Your task to perform on an android device: Search for "macbook pro 13 inch" on costco.com, select the first entry, add it to the cart, then select checkout. Image 0: 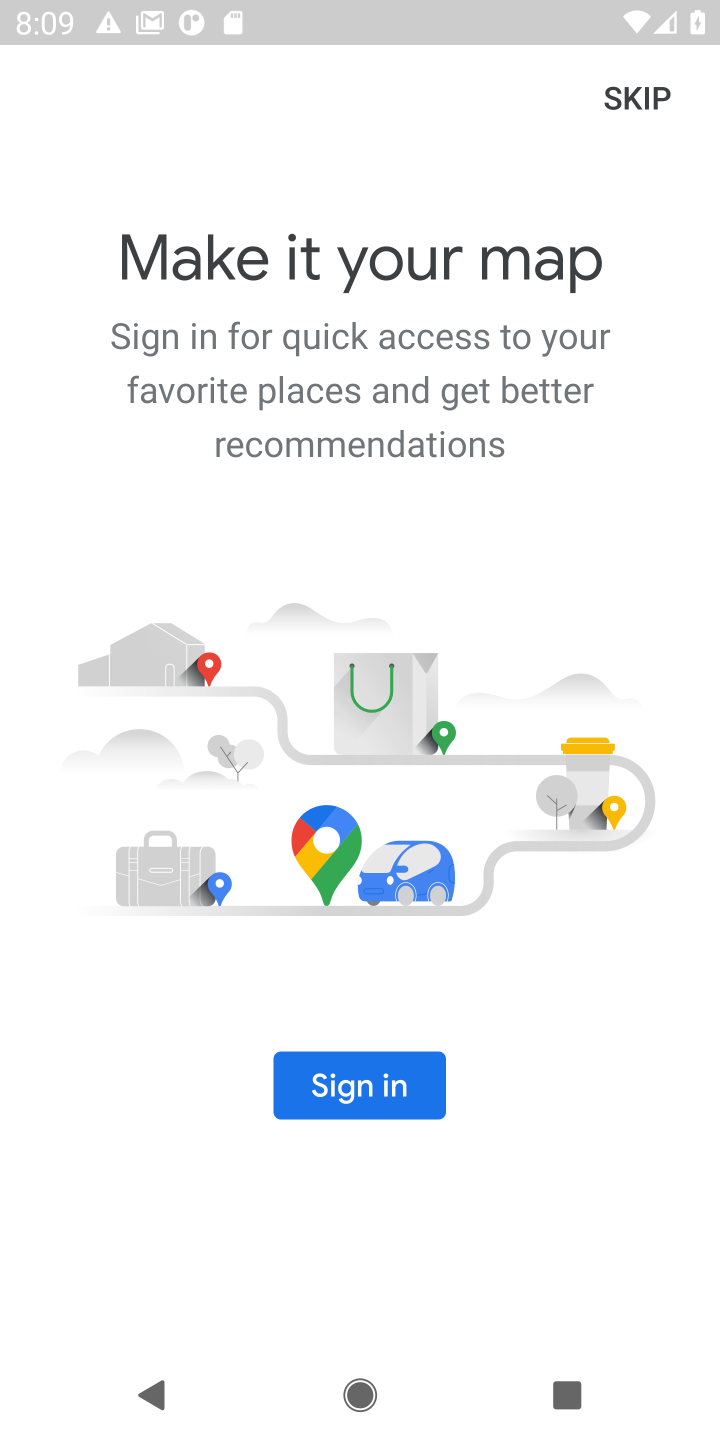
Step 0: press home button
Your task to perform on an android device: Search for "macbook pro 13 inch" on costco.com, select the first entry, add it to the cart, then select checkout. Image 1: 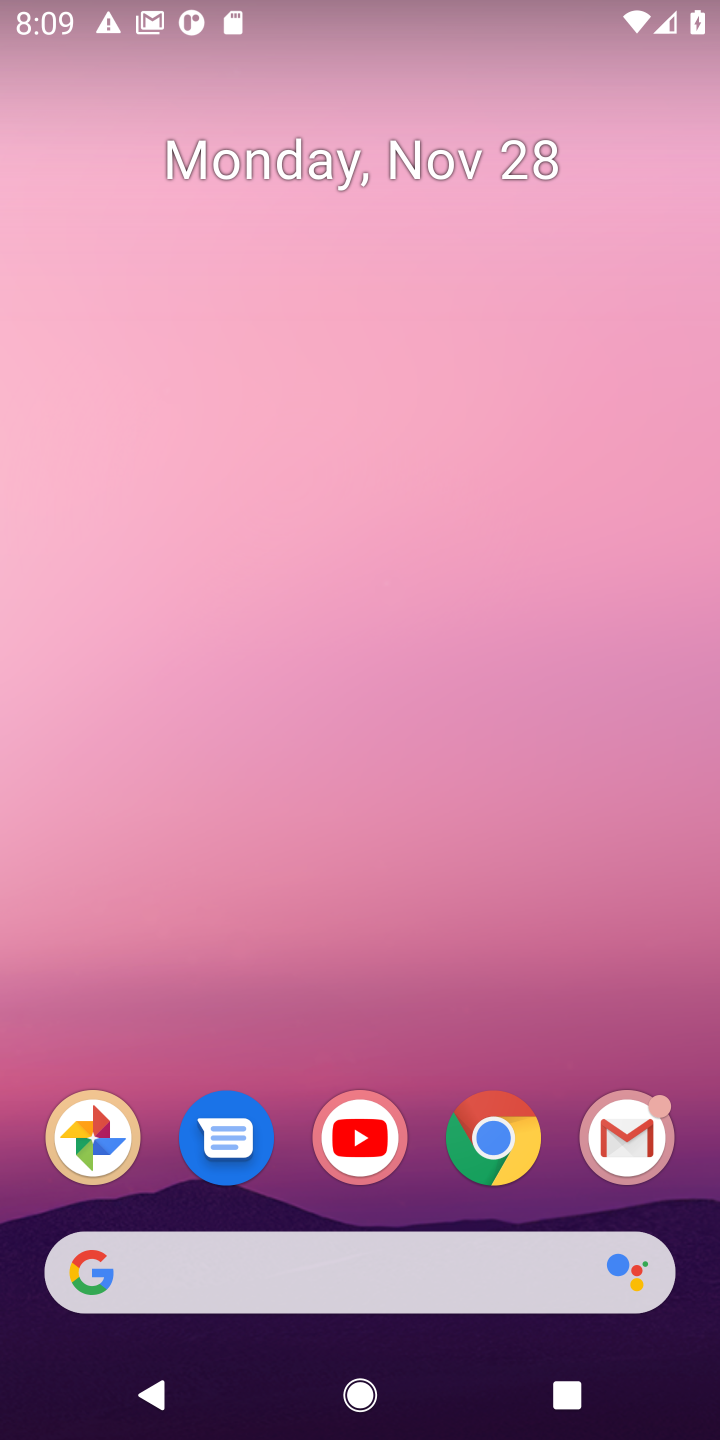
Step 1: click (486, 1130)
Your task to perform on an android device: Search for "macbook pro 13 inch" on costco.com, select the first entry, add it to the cart, then select checkout. Image 2: 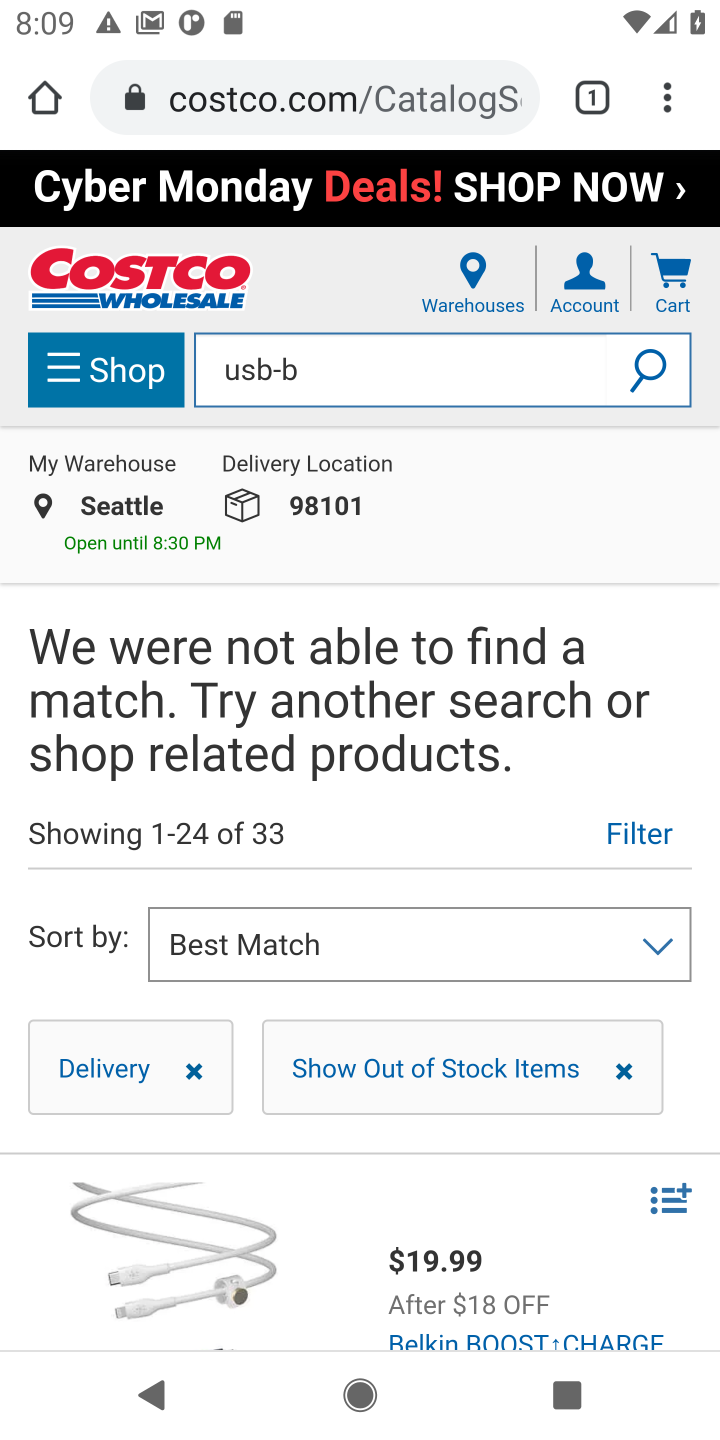
Step 2: click (334, 371)
Your task to perform on an android device: Search for "macbook pro 13 inch" on costco.com, select the first entry, add it to the cart, then select checkout. Image 3: 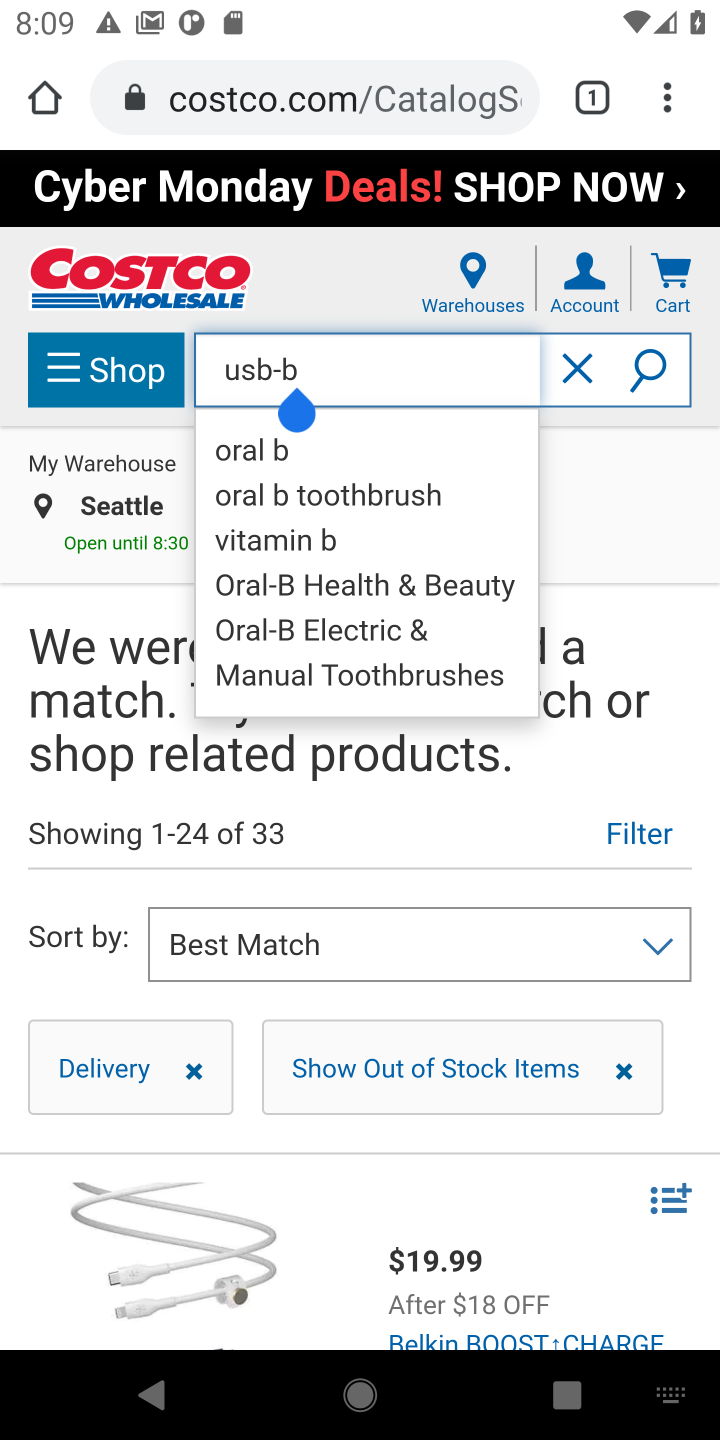
Step 3: click (570, 376)
Your task to perform on an android device: Search for "macbook pro 13 inch" on costco.com, select the first entry, add it to the cart, then select checkout. Image 4: 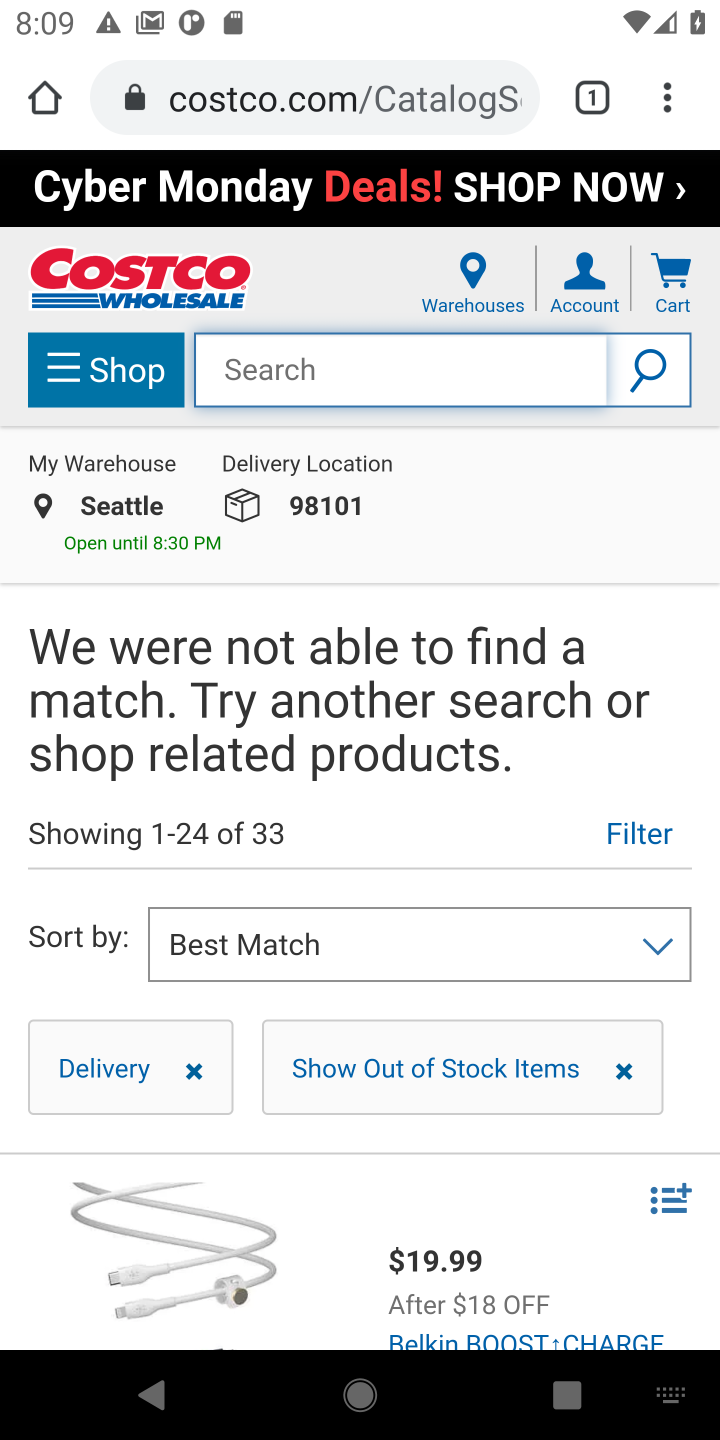
Step 4: type "macbook pro 13 inch"
Your task to perform on an android device: Search for "macbook pro 13 inch" on costco.com, select the first entry, add it to the cart, then select checkout. Image 5: 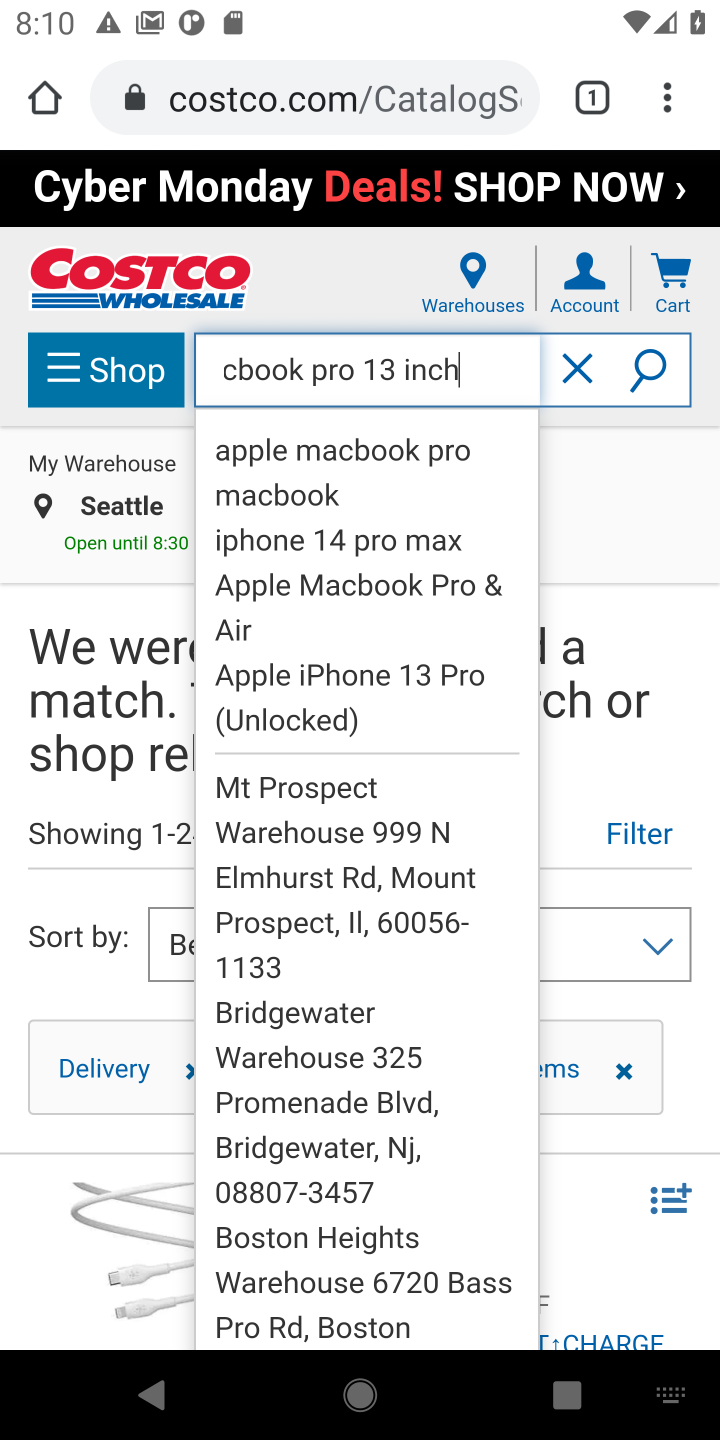
Step 5: click (663, 376)
Your task to perform on an android device: Search for "macbook pro 13 inch" on costco.com, select the first entry, add it to the cart, then select checkout. Image 6: 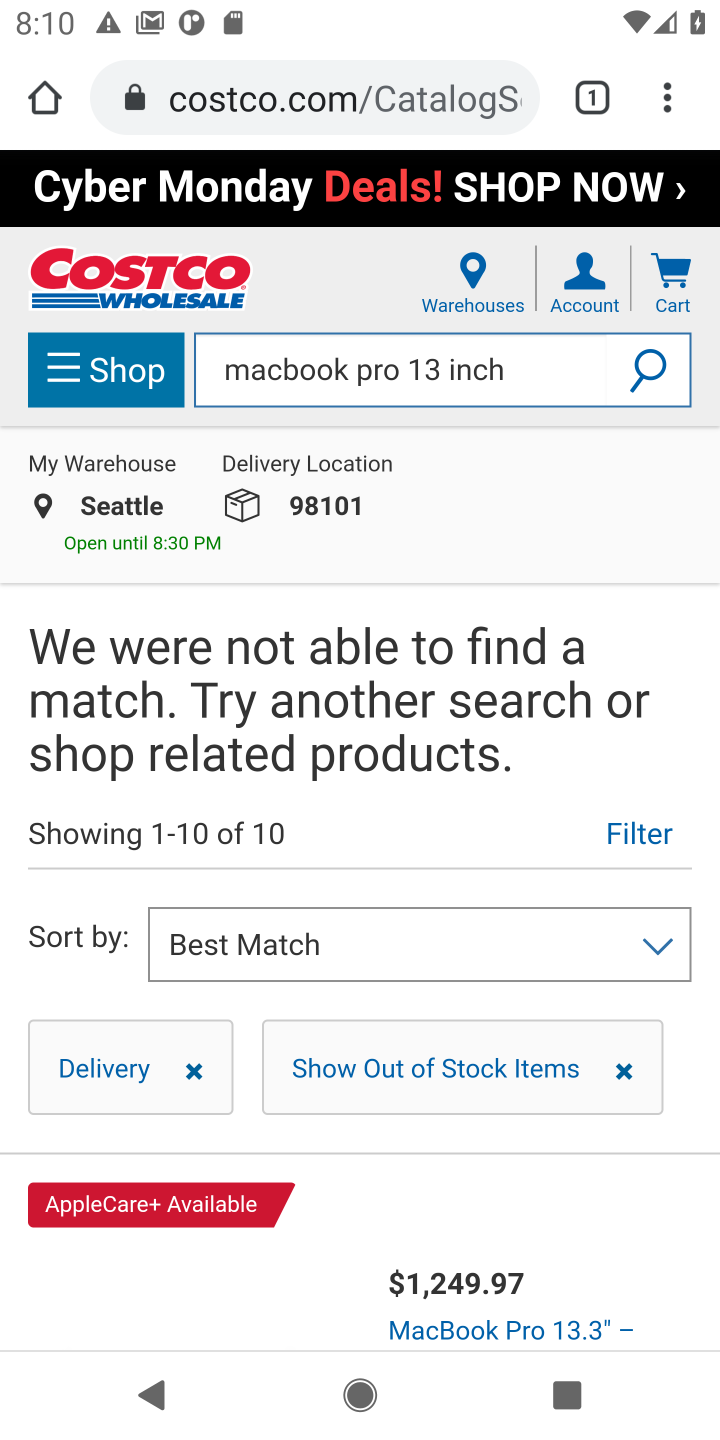
Step 6: task complete